Your task to perform on an android device: Open notification settings Image 0: 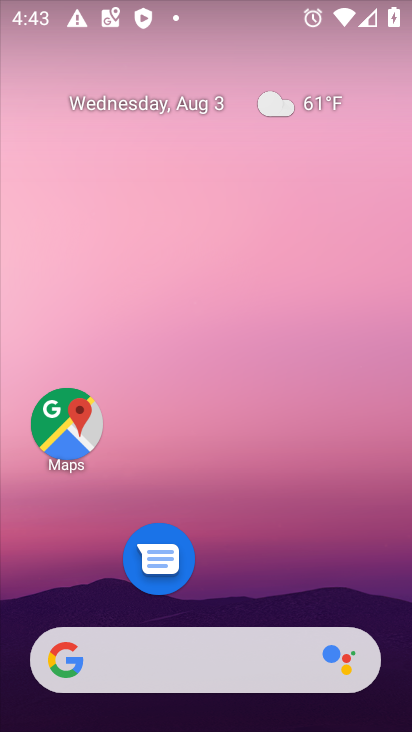
Step 0: drag from (145, 561) to (158, 222)
Your task to perform on an android device: Open notification settings Image 1: 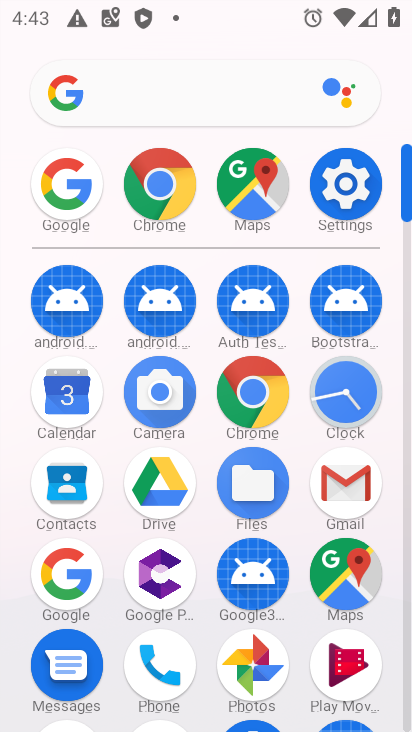
Step 1: click (333, 193)
Your task to perform on an android device: Open notification settings Image 2: 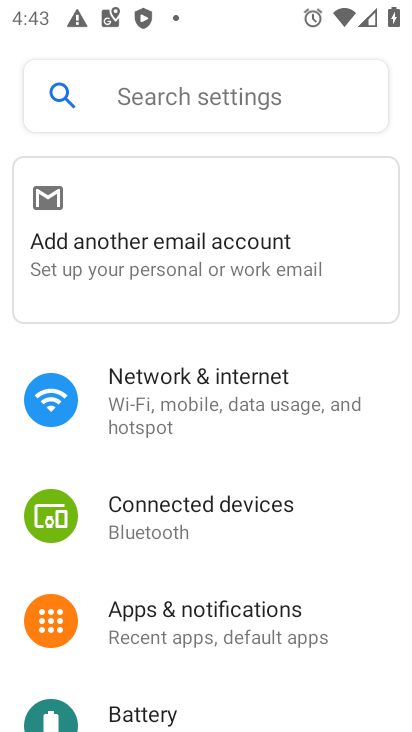
Step 2: click (198, 621)
Your task to perform on an android device: Open notification settings Image 3: 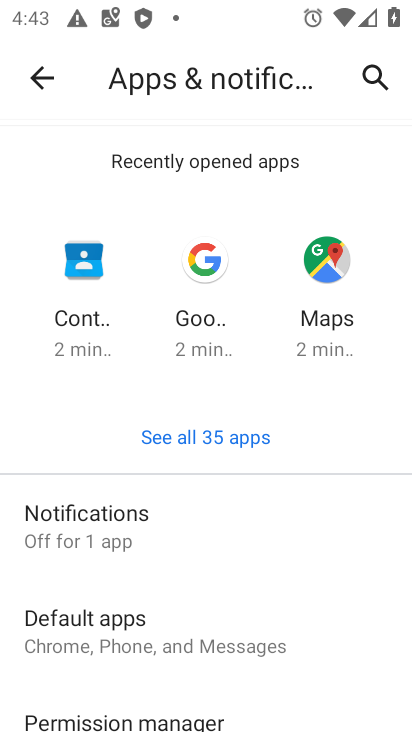
Step 3: click (99, 554)
Your task to perform on an android device: Open notification settings Image 4: 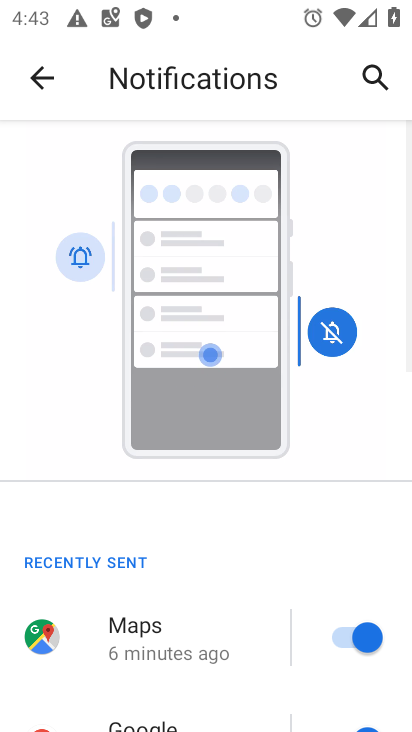
Step 4: task complete